Your task to perform on an android device: set an alarm Image 0: 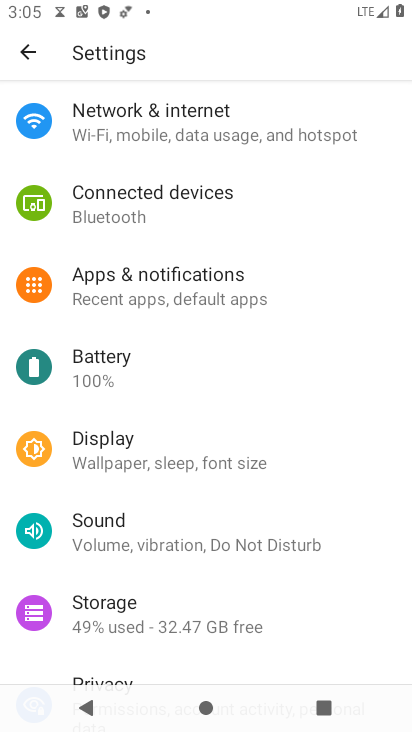
Step 0: press home button
Your task to perform on an android device: set an alarm Image 1: 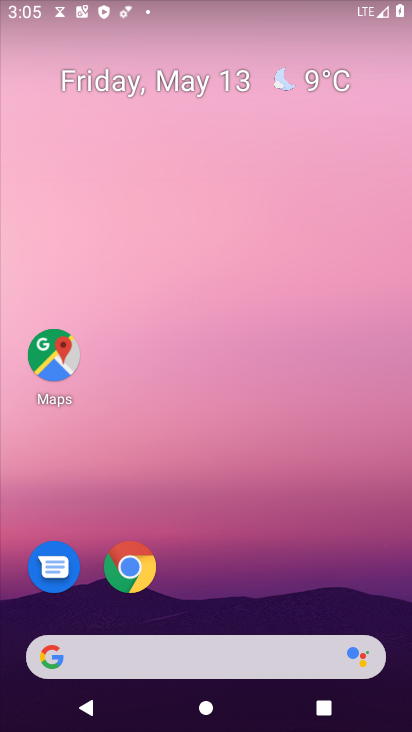
Step 1: drag from (256, 609) to (329, 7)
Your task to perform on an android device: set an alarm Image 2: 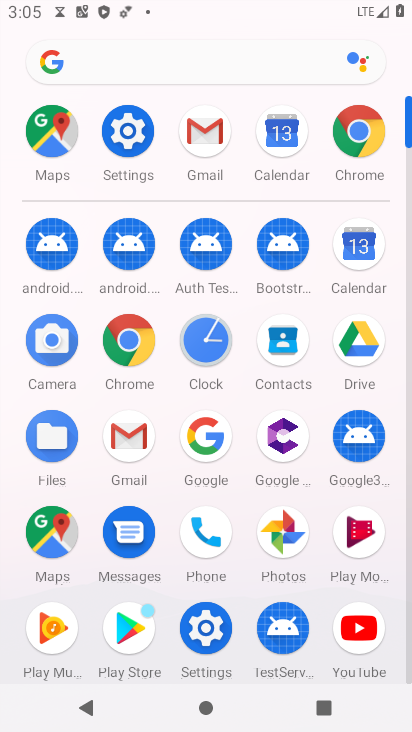
Step 2: click (209, 342)
Your task to perform on an android device: set an alarm Image 3: 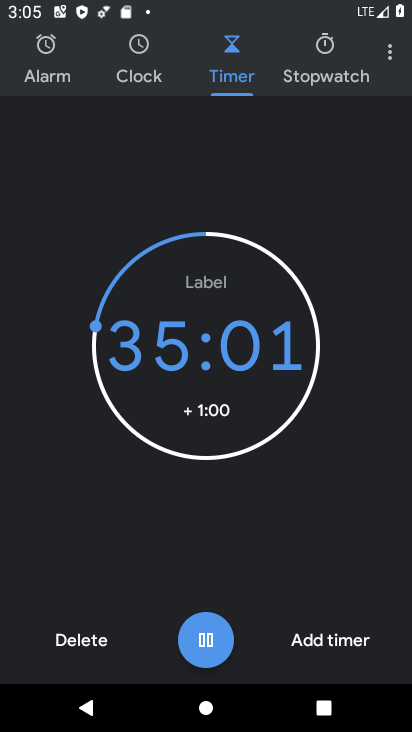
Step 3: click (44, 71)
Your task to perform on an android device: set an alarm Image 4: 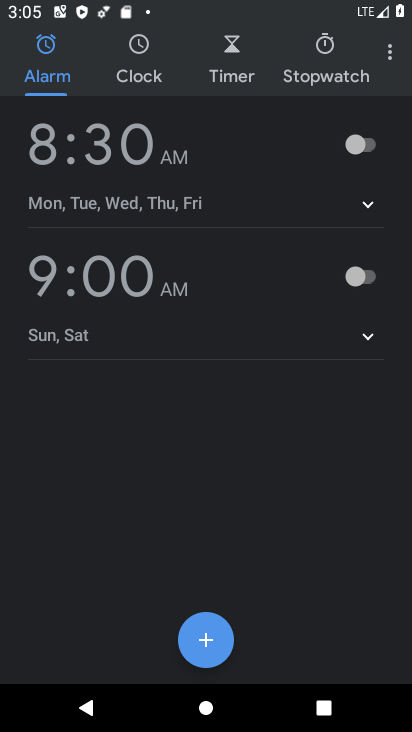
Step 4: click (218, 643)
Your task to perform on an android device: set an alarm Image 5: 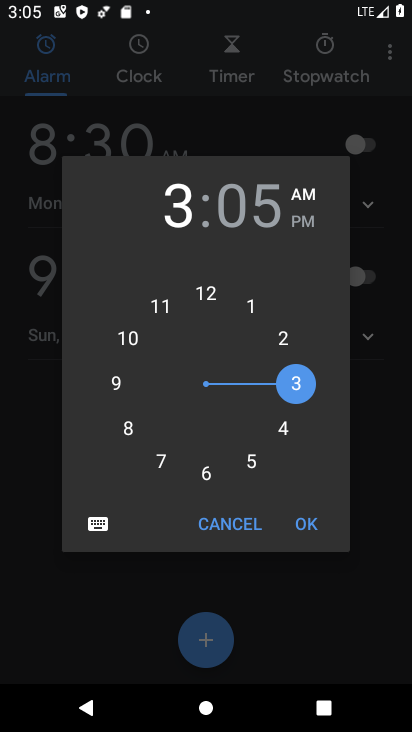
Step 5: click (212, 481)
Your task to perform on an android device: set an alarm Image 6: 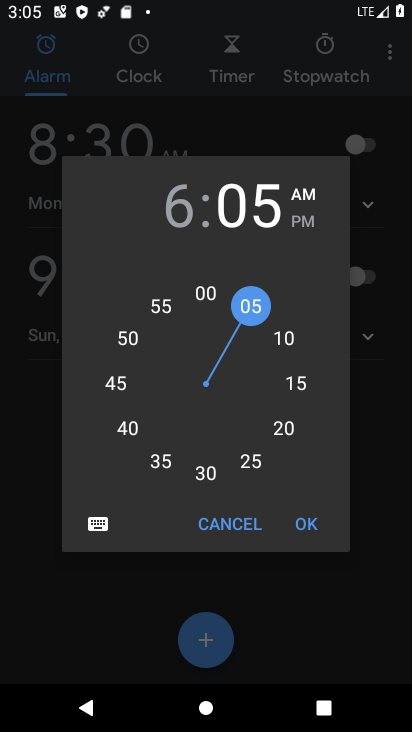
Step 6: click (211, 299)
Your task to perform on an android device: set an alarm Image 7: 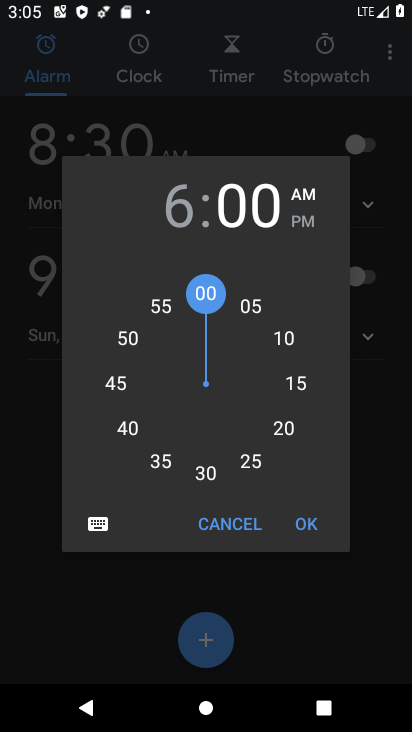
Step 7: click (305, 526)
Your task to perform on an android device: set an alarm Image 8: 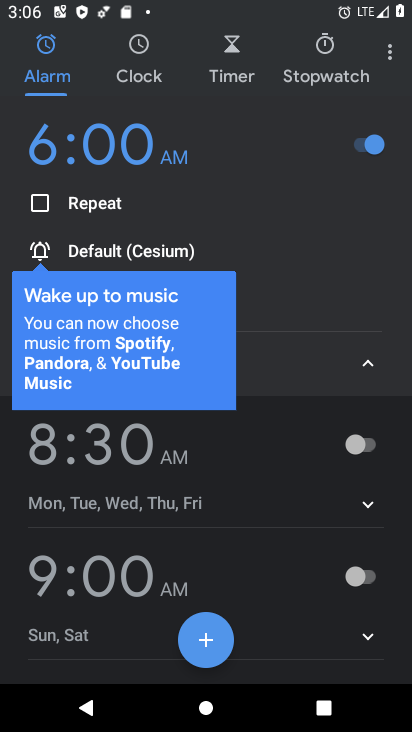
Step 8: task complete